Your task to perform on an android device: Go to Maps Image 0: 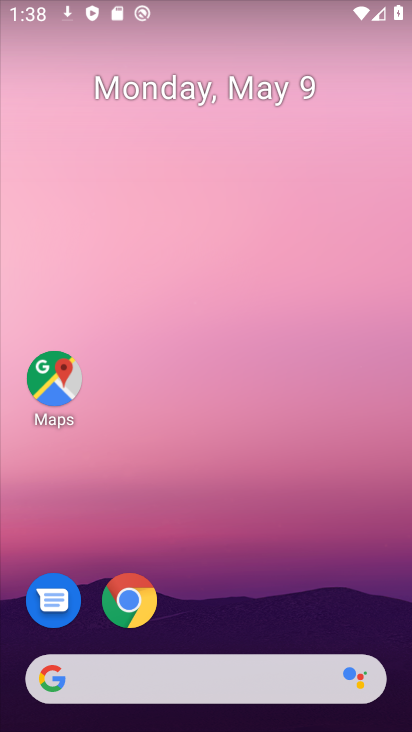
Step 0: drag from (247, 605) to (280, 22)
Your task to perform on an android device: Go to Maps Image 1: 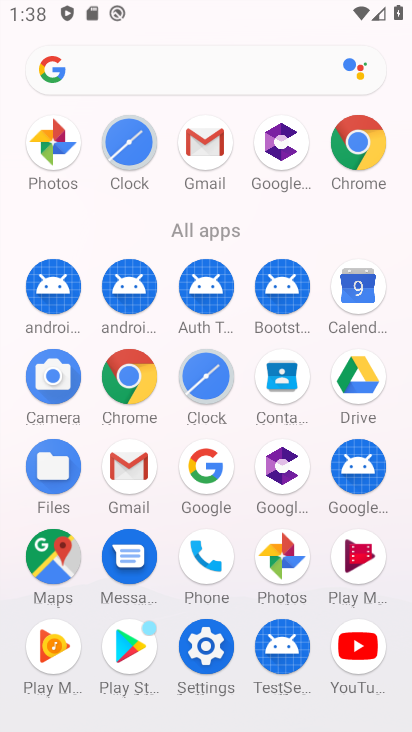
Step 1: click (56, 558)
Your task to perform on an android device: Go to Maps Image 2: 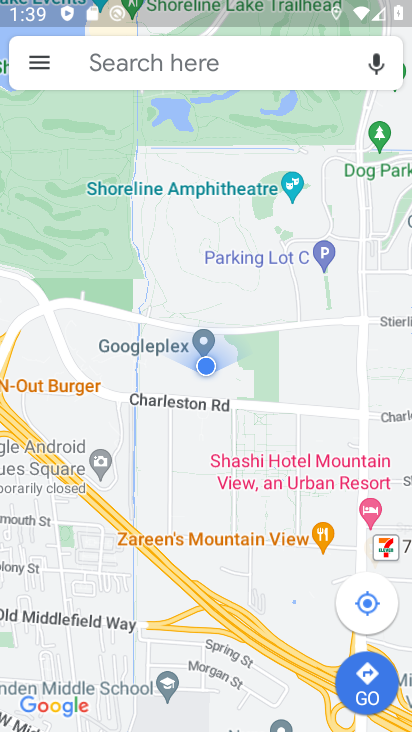
Step 2: task complete